Your task to perform on an android device: Open Amazon Image 0: 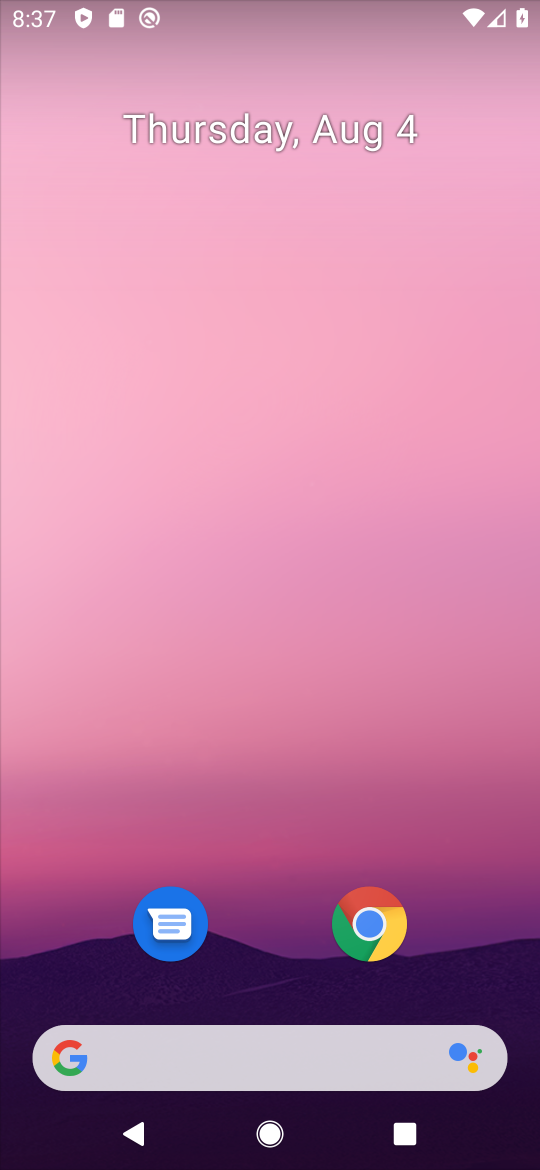
Step 0: drag from (299, 1026) to (385, 47)
Your task to perform on an android device: Open Amazon Image 1: 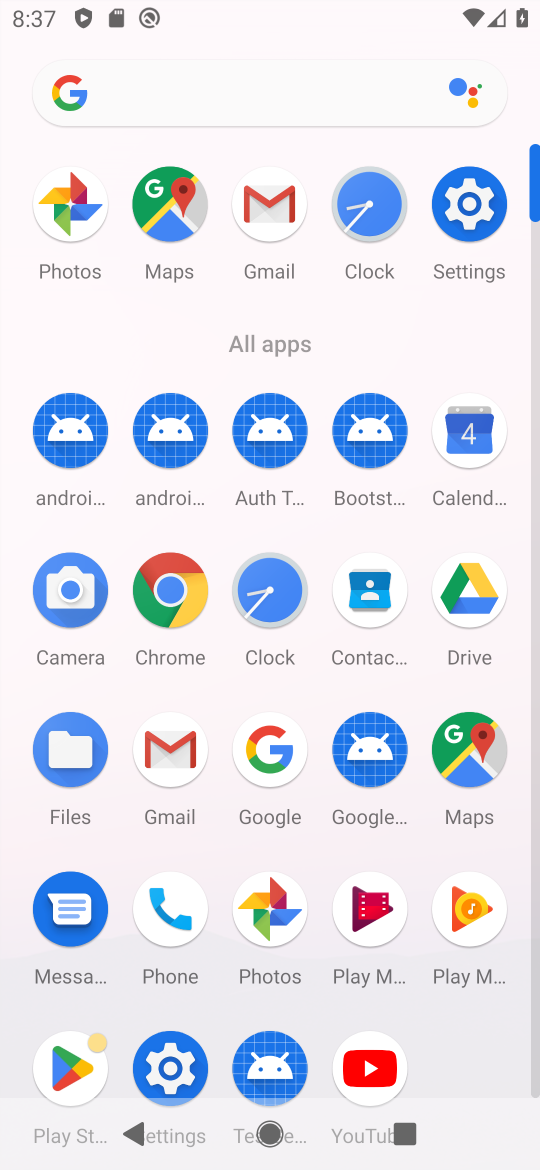
Step 1: click (164, 586)
Your task to perform on an android device: Open Amazon Image 2: 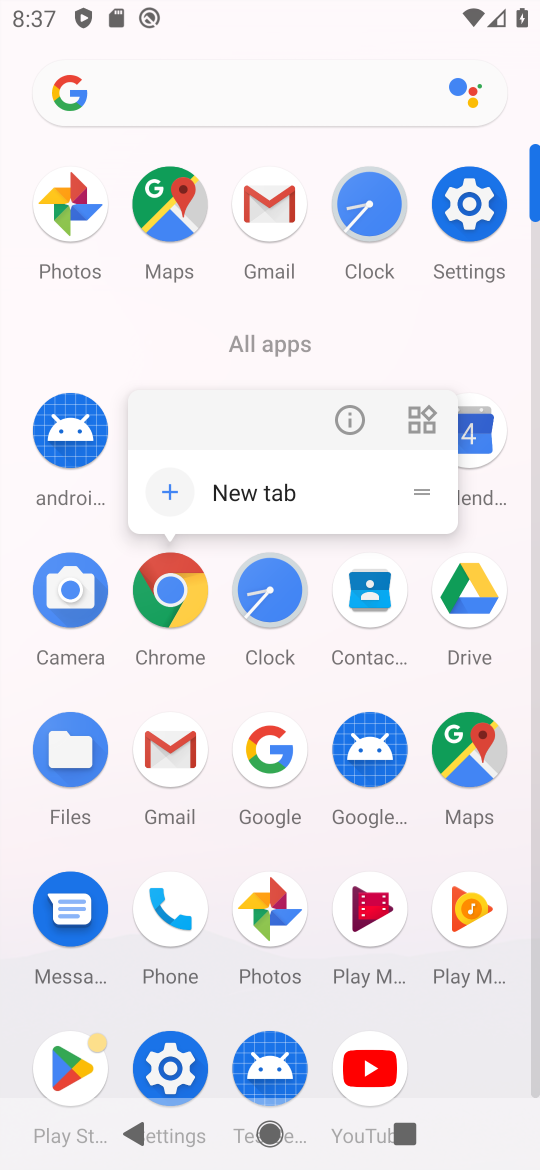
Step 2: click (164, 586)
Your task to perform on an android device: Open Amazon Image 3: 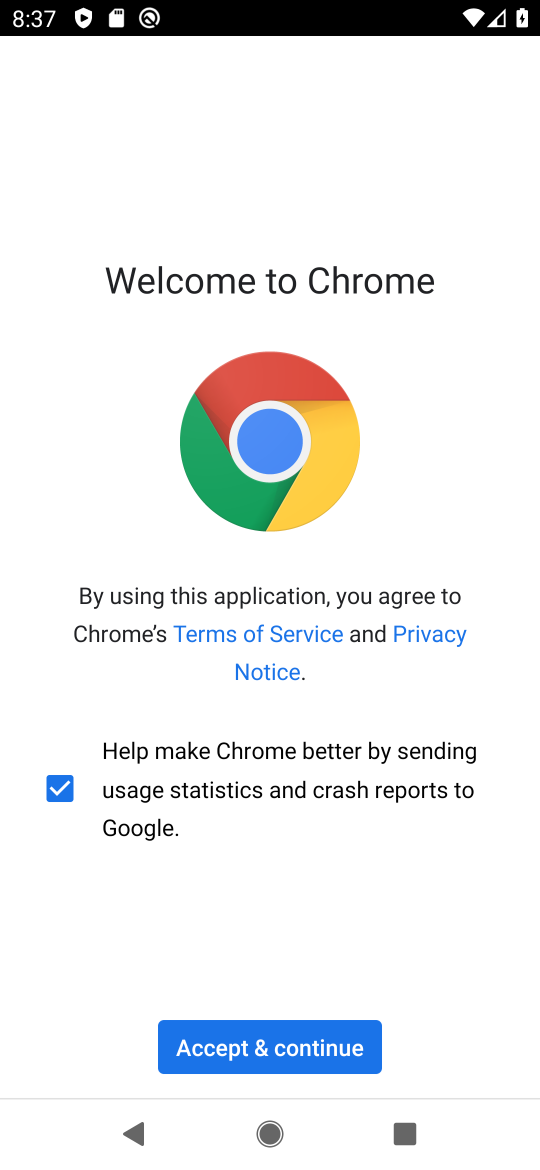
Step 3: click (324, 1049)
Your task to perform on an android device: Open Amazon Image 4: 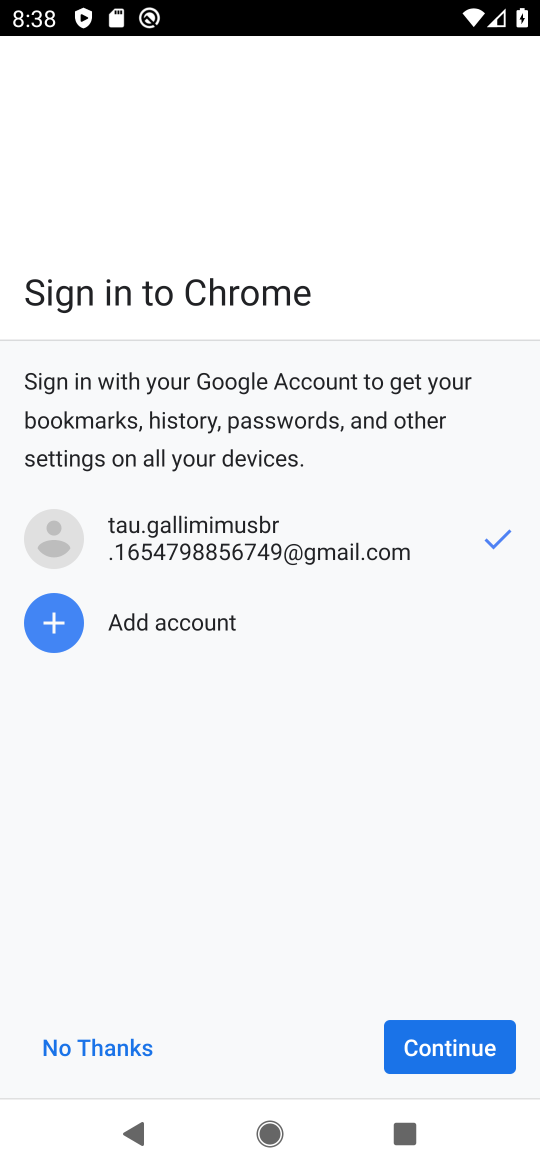
Step 4: press home button
Your task to perform on an android device: Open Amazon Image 5: 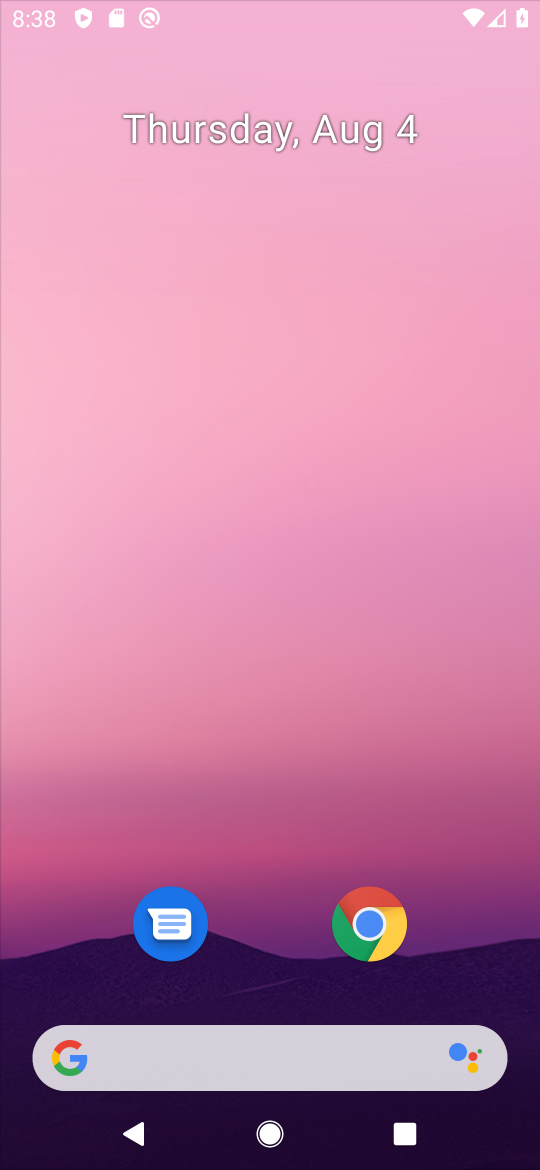
Step 5: drag from (306, 964) to (275, 96)
Your task to perform on an android device: Open Amazon Image 6: 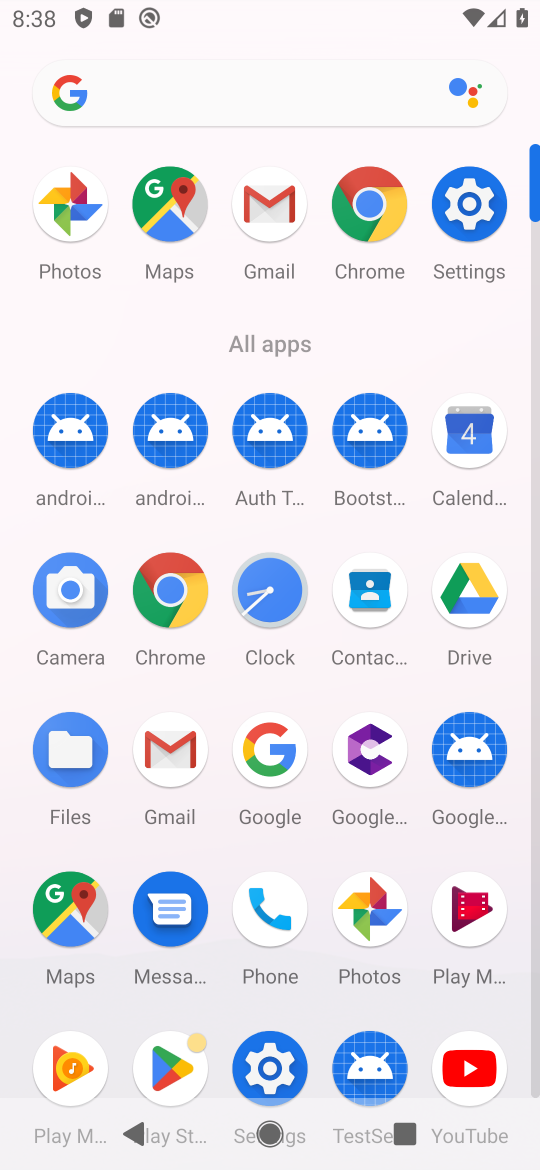
Step 6: click (155, 596)
Your task to perform on an android device: Open Amazon Image 7: 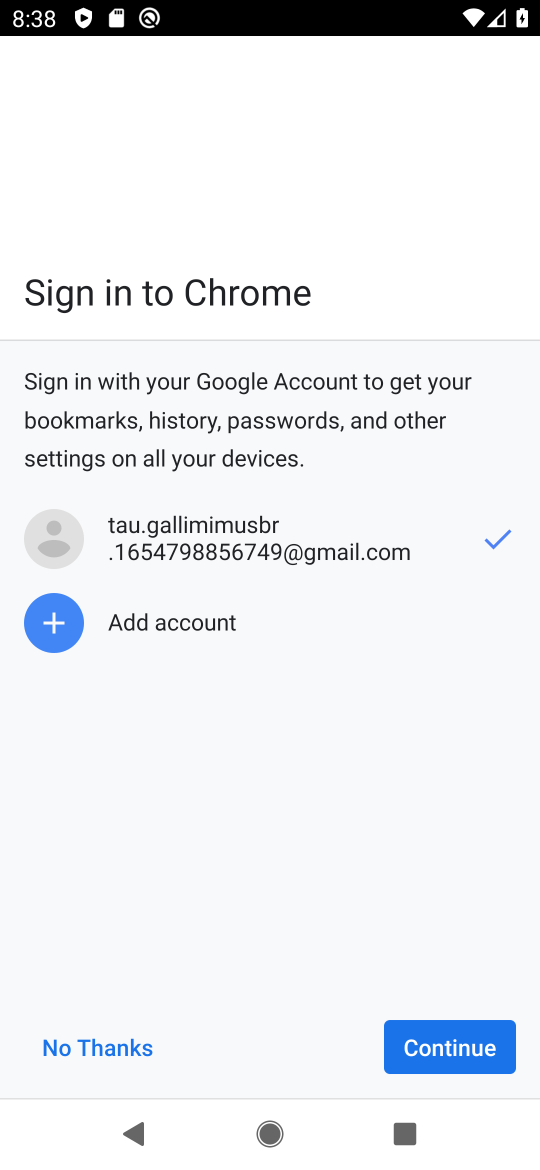
Step 7: click (499, 1041)
Your task to perform on an android device: Open Amazon Image 8: 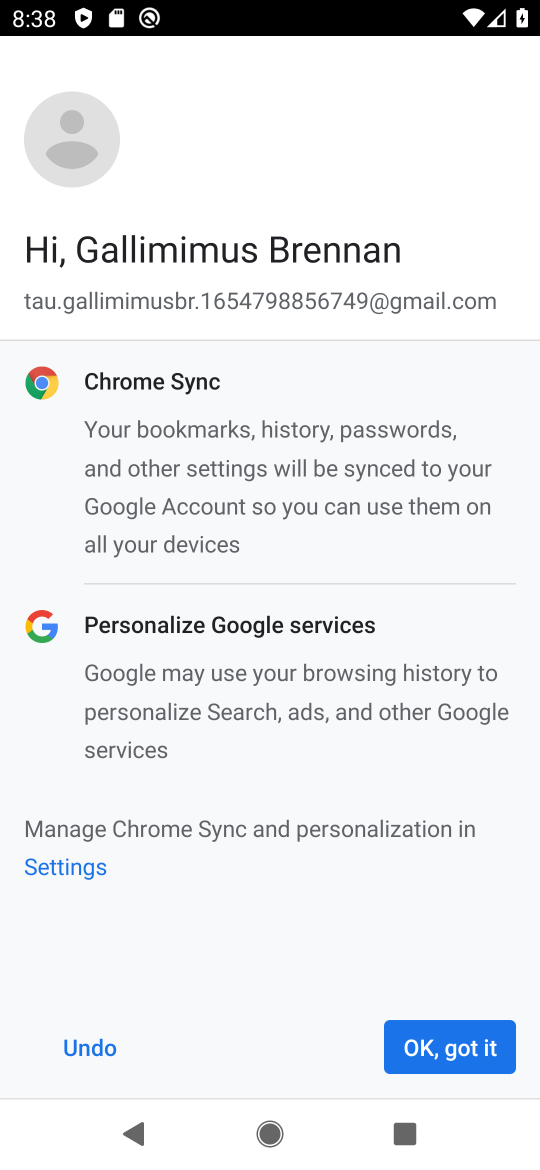
Step 8: click (486, 1044)
Your task to perform on an android device: Open Amazon Image 9: 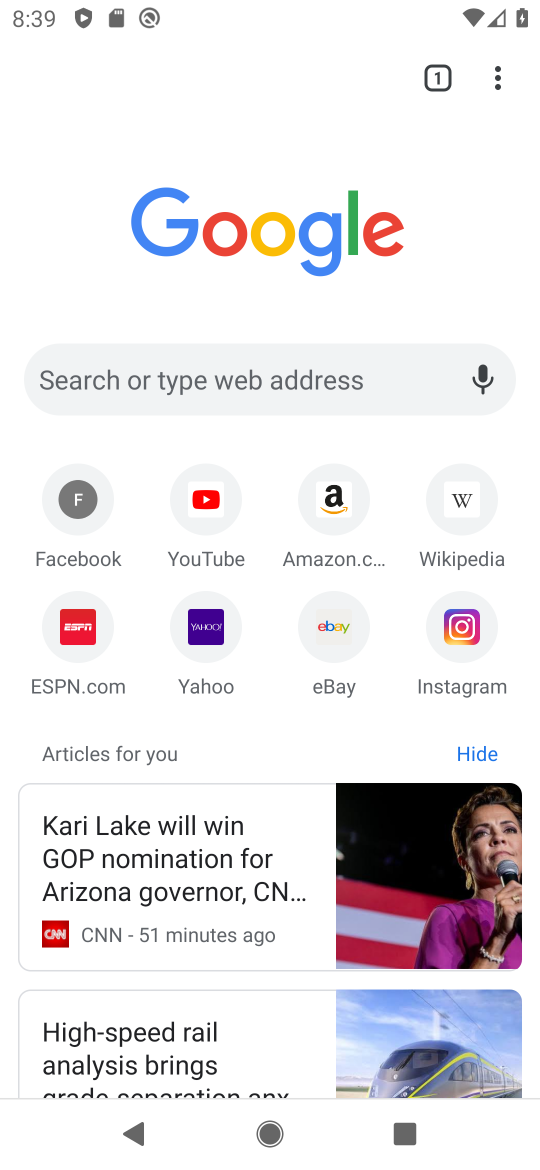
Step 9: click (315, 524)
Your task to perform on an android device: Open Amazon Image 10: 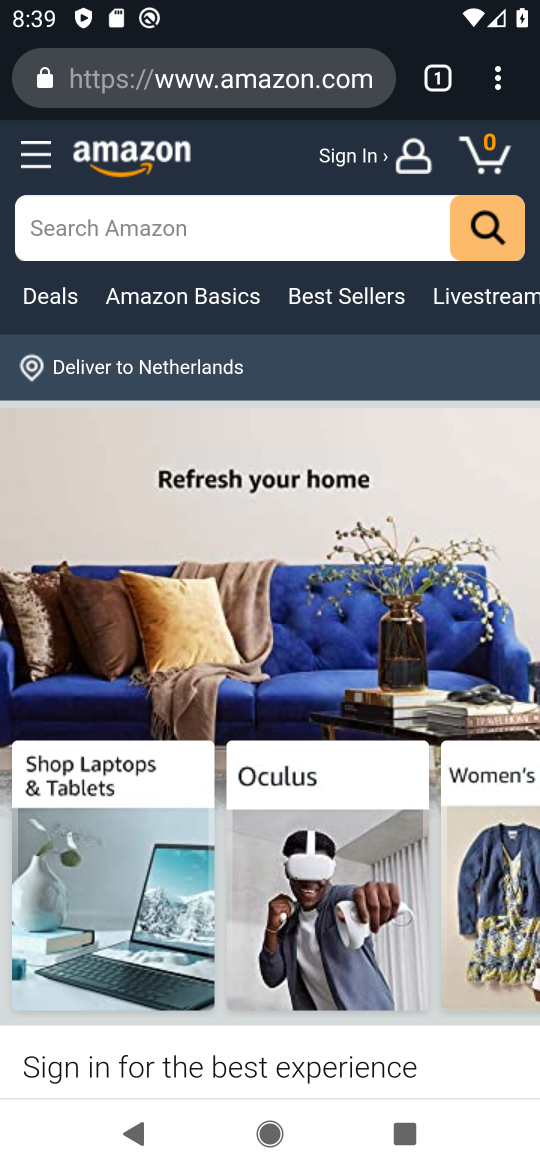
Step 10: task complete